Your task to perform on an android device: Check the news Image 0: 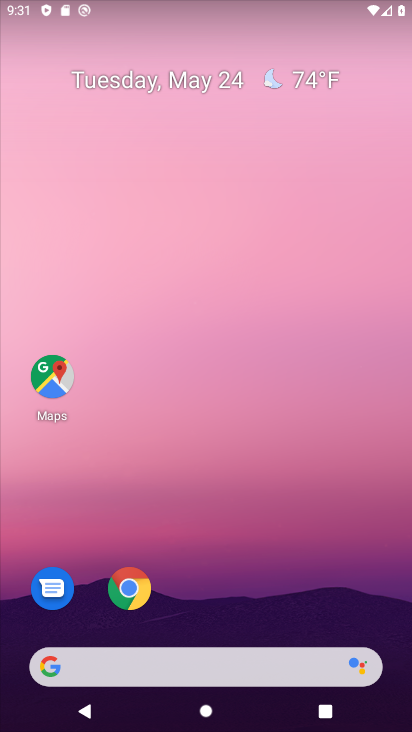
Step 0: click (212, 679)
Your task to perform on an android device: Check the news Image 1: 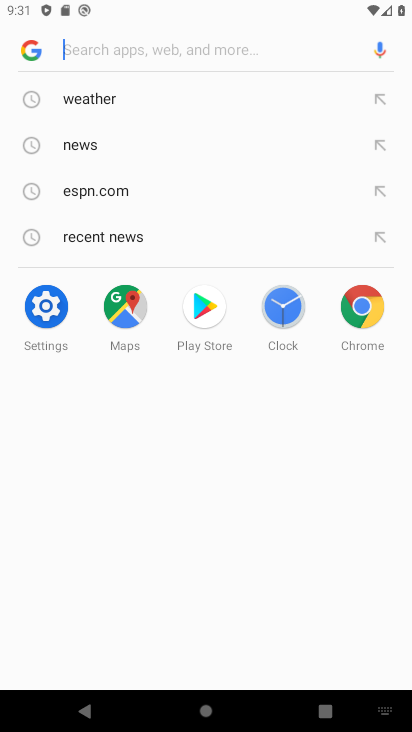
Step 1: click (82, 147)
Your task to perform on an android device: Check the news Image 2: 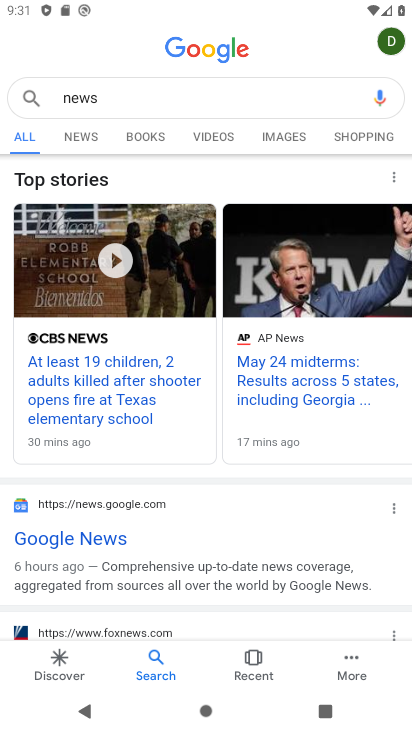
Step 2: task complete